Your task to perform on an android device: Search for vegetarian restaurants on Maps Image 0: 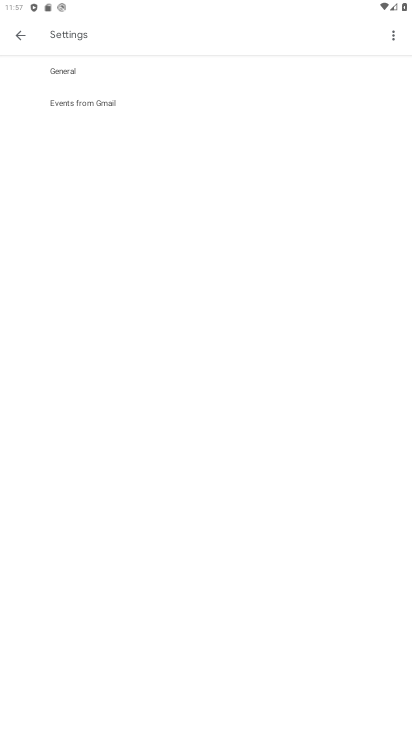
Step 0: click (16, 35)
Your task to perform on an android device: Search for vegetarian restaurants on Maps Image 1: 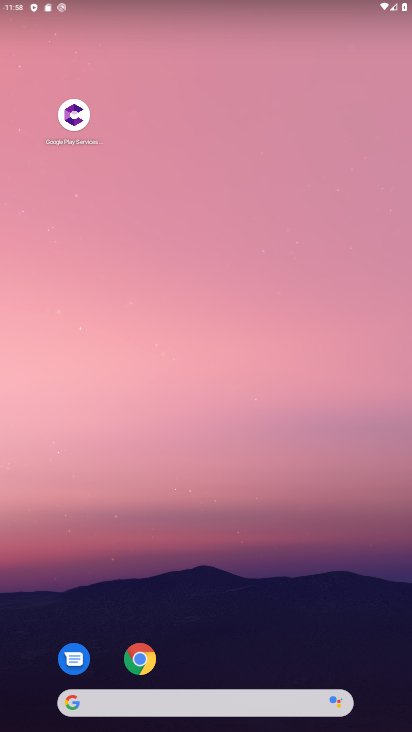
Step 1: drag from (168, 645) to (174, 284)
Your task to perform on an android device: Search for vegetarian restaurants on Maps Image 2: 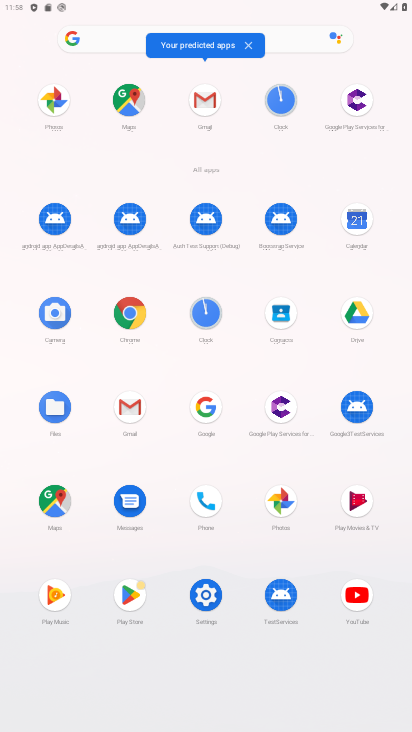
Step 2: click (135, 106)
Your task to perform on an android device: Search for vegetarian restaurants on Maps Image 3: 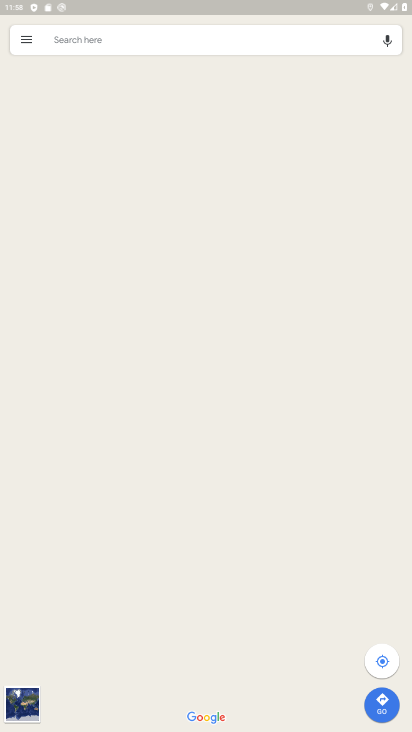
Step 3: click (109, 39)
Your task to perform on an android device: Search for vegetarian restaurants on Maps Image 4: 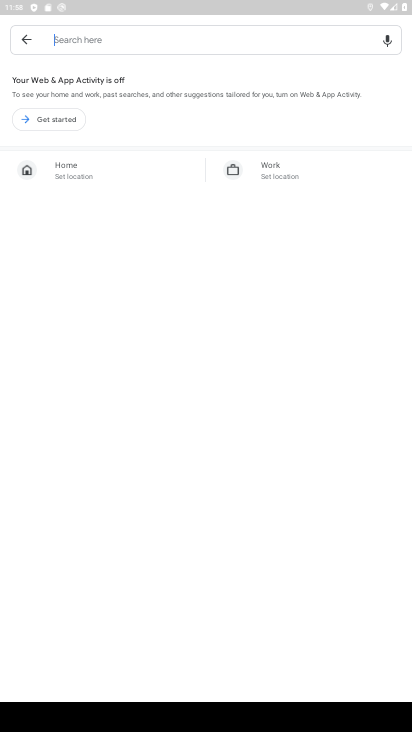
Step 4: click (109, 39)
Your task to perform on an android device: Search for vegetarian restaurants on Maps Image 5: 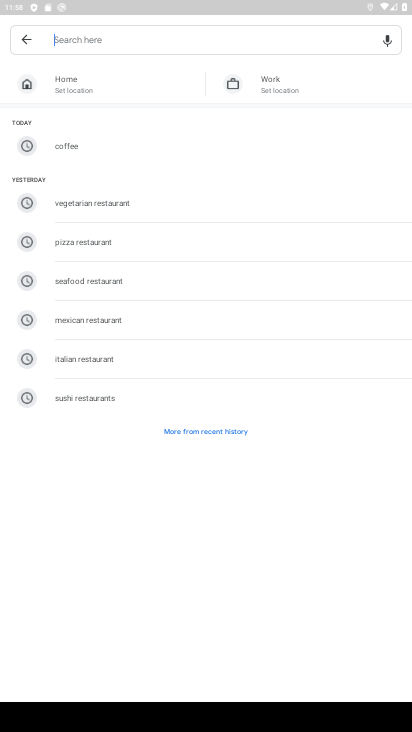
Step 5: click (113, 209)
Your task to perform on an android device: Search for vegetarian restaurants on Maps Image 6: 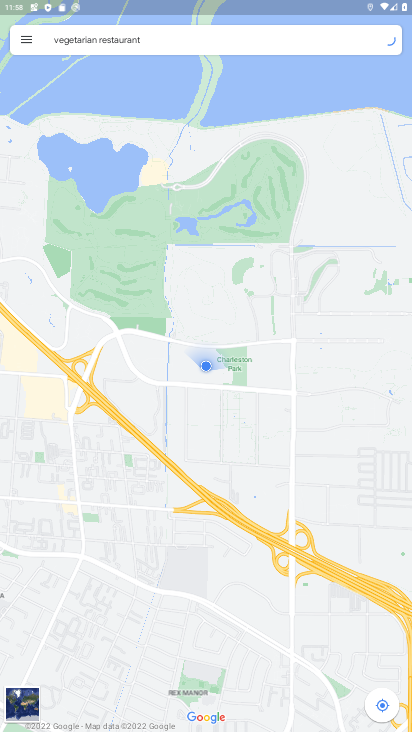
Step 6: task complete